Your task to perform on an android device: open the mobile data screen to see how much data has been used Image 0: 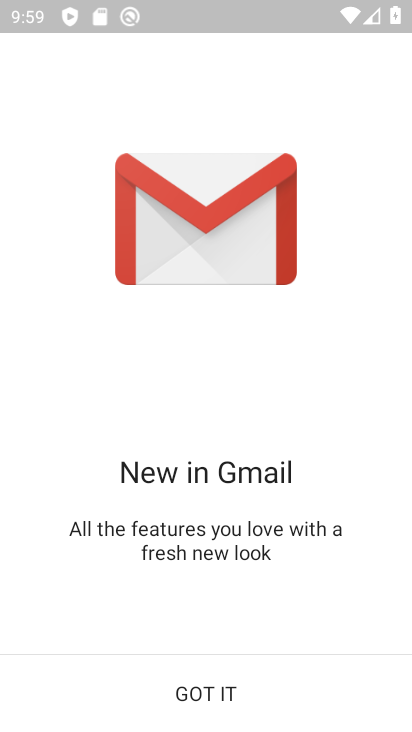
Step 0: press home button
Your task to perform on an android device: open the mobile data screen to see how much data has been used Image 1: 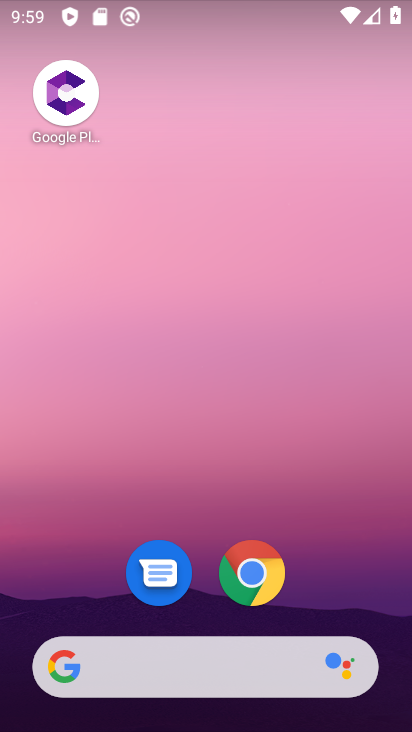
Step 1: drag from (210, 642) to (271, 153)
Your task to perform on an android device: open the mobile data screen to see how much data has been used Image 2: 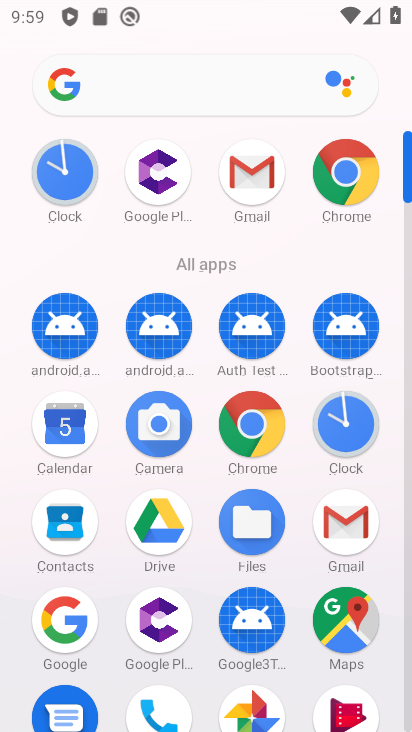
Step 2: drag from (119, 685) to (140, 188)
Your task to perform on an android device: open the mobile data screen to see how much data has been used Image 3: 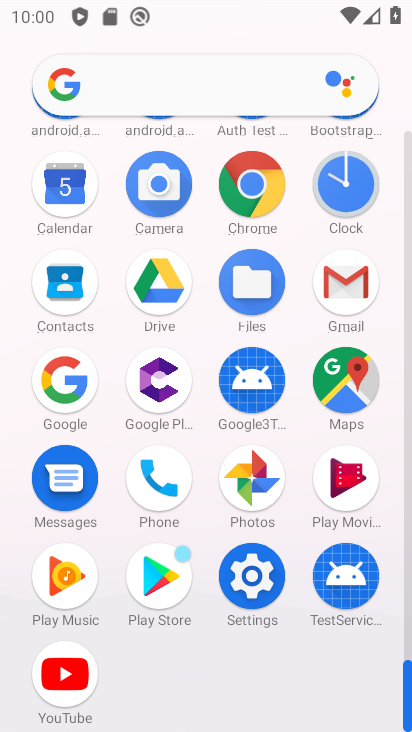
Step 3: click (245, 589)
Your task to perform on an android device: open the mobile data screen to see how much data has been used Image 4: 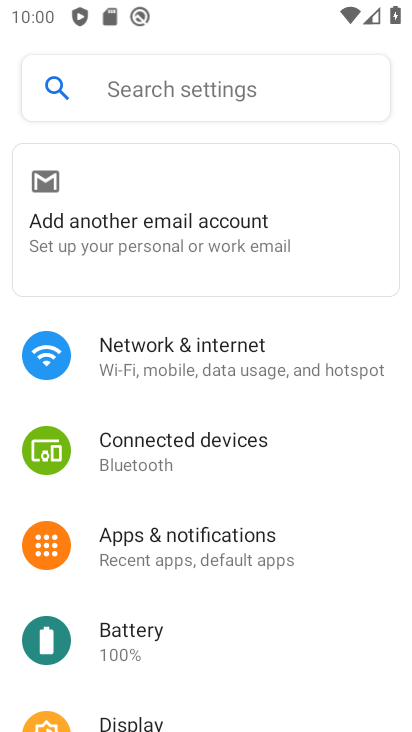
Step 4: click (166, 363)
Your task to perform on an android device: open the mobile data screen to see how much data has been used Image 5: 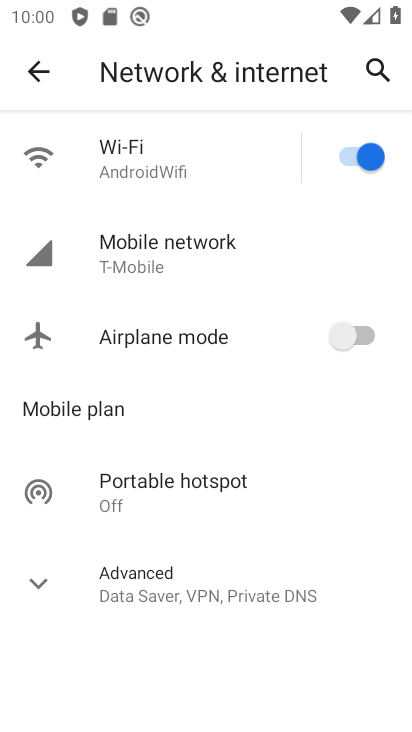
Step 5: click (162, 258)
Your task to perform on an android device: open the mobile data screen to see how much data has been used Image 6: 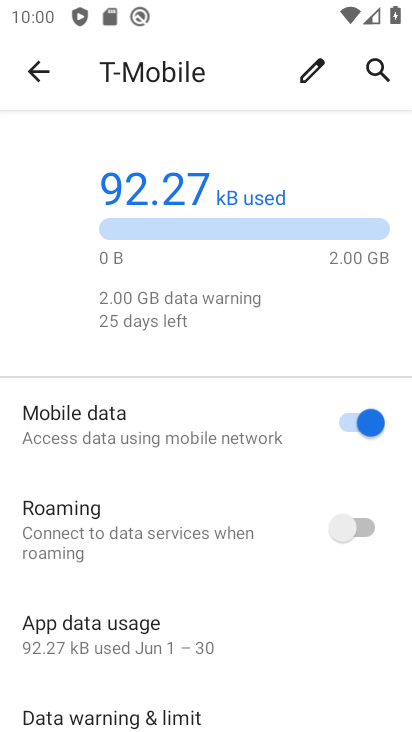
Step 6: press home button
Your task to perform on an android device: open the mobile data screen to see how much data has been used Image 7: 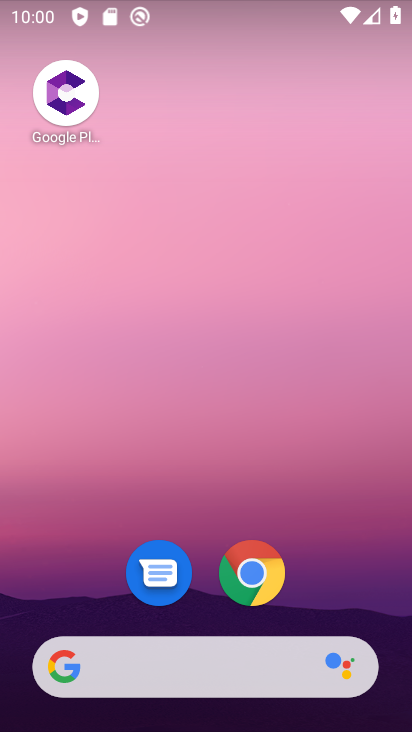
Step 7: drag from (210, 636) to (210, 287)
Your task to perform on an android device: open the mobile data screen to see how much data has been used Image 8: 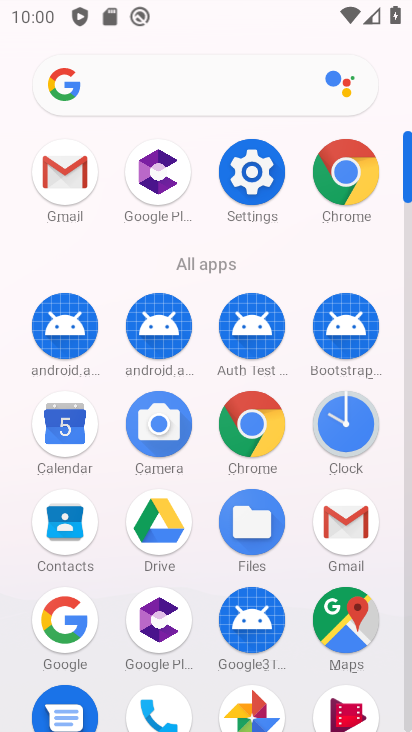
Step 8: click (262, 181)
Your task to perform on an android device: open the mobile data screen to see how much data has been used Image 9: 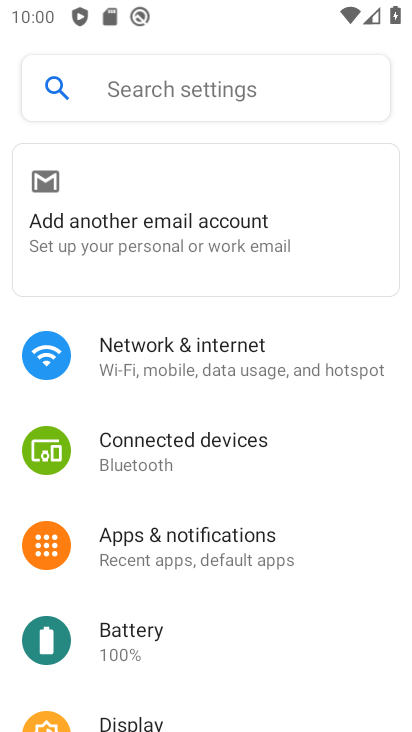
Step 9: click (219, 375)
Your task to perform on an android device: open the mobile data screen to see how much data has been used Image 10: 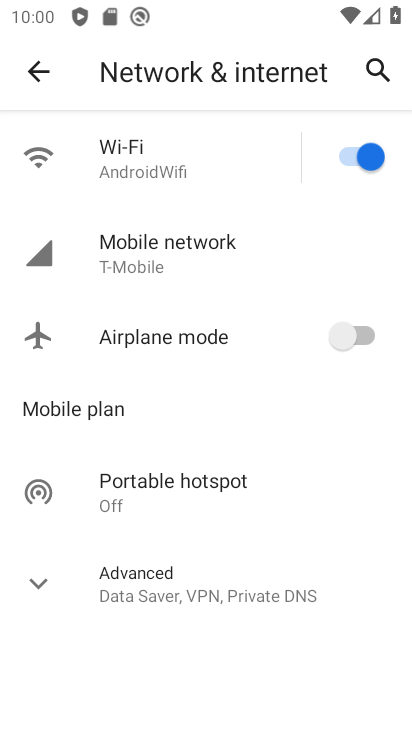
Step 10: click (181, 251)
Your task to perform on an android device: open the mobile data screen to see how much data has been used Image 11: 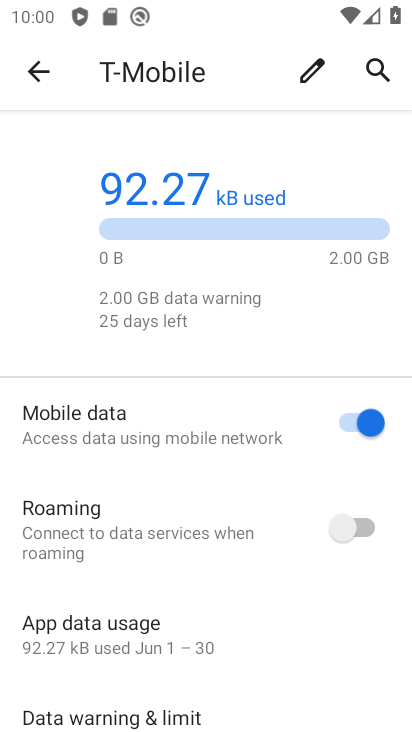
Step 11: task complete